Your task to perform on an android device: turn off sleep mode Image 0: 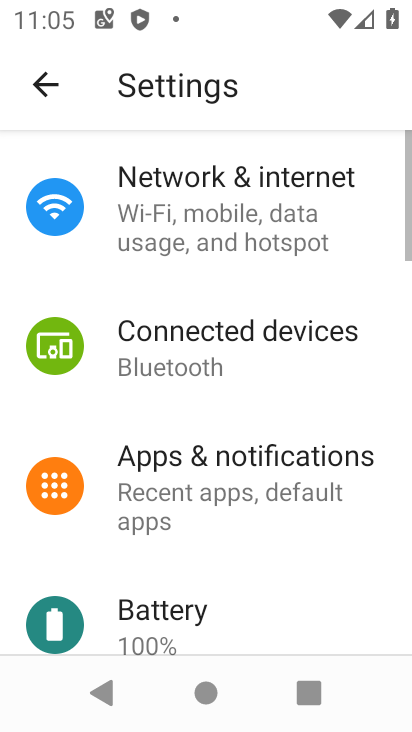
Step 0: press home button
Your task to perform on an android device: turn off sleep mode Image 1: 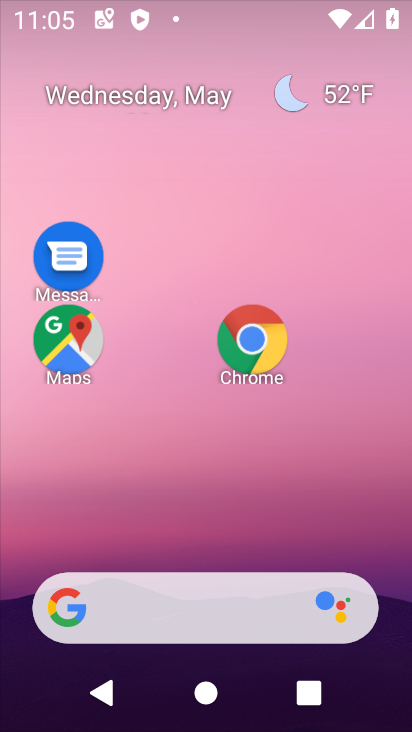
Step 1: drag from (209, 520) to (196, 88)
Your task to perform on an android device: turn off sleep mode Image 2: 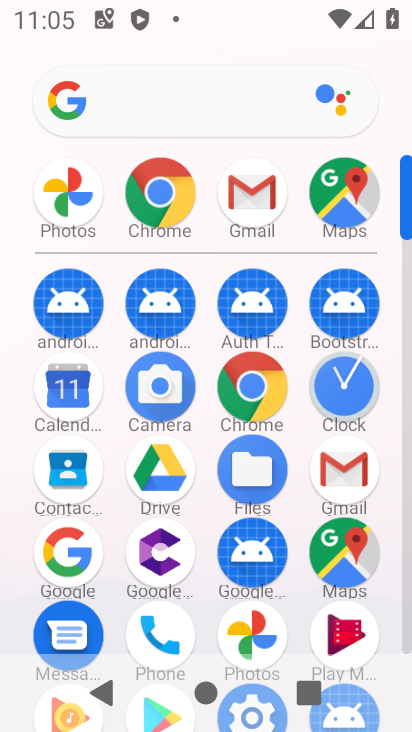
Step 2: drag from (207, 274) to (209, 42)
Your task to perform on an android device: turn off sleep mode Image 3: 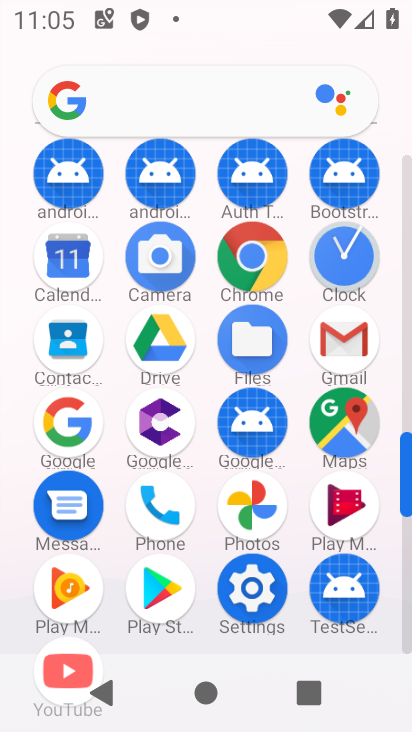
Step 3: click (260, 588)
Your task to perform on an android device: turn off sleep mode Image 4: 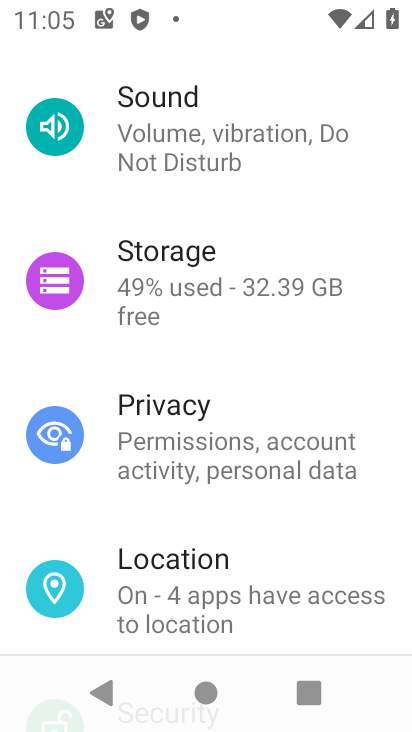
Step 4: drag from (286, 543) to (288, 656)
Your task to perform on an android device: turn off sleep mode Image 5: 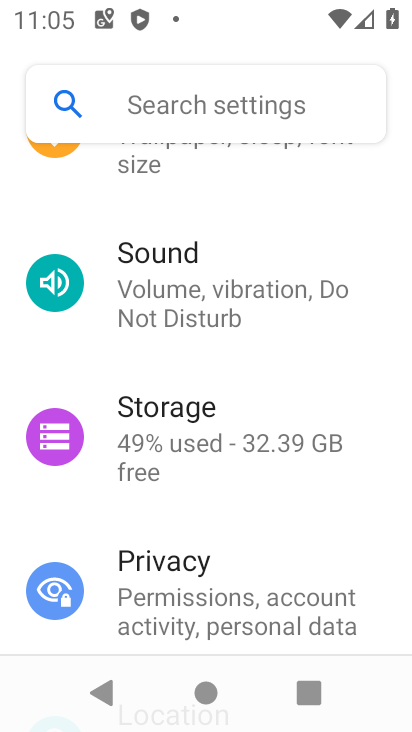
Step 5: drag from (210, 249) to (220, 469)
Your task to perform on an android device: turn off sleep mode Image 6: 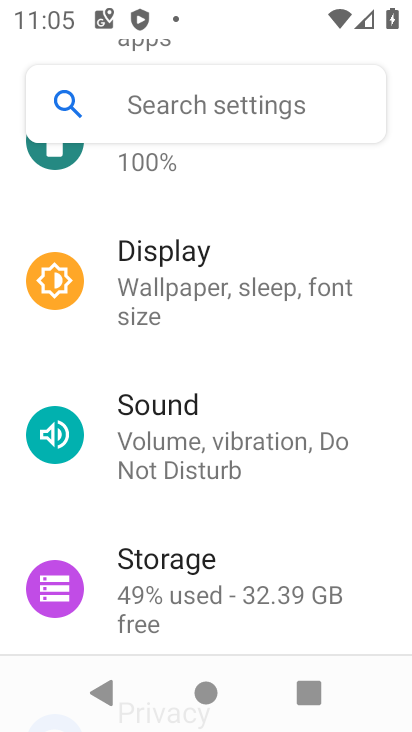
Step 6: click (192, 263)
Your task to perform on an android device: turn off sleep mode Image 7: 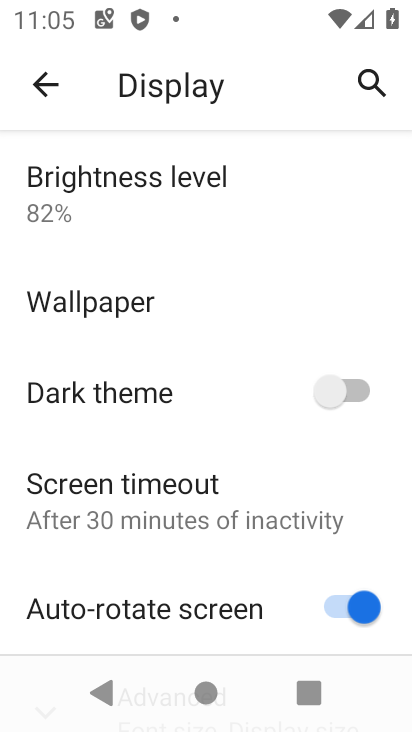
Step 7: click (200, 502)
Your task to perform on an android device: turn off sleep mode Image 8: 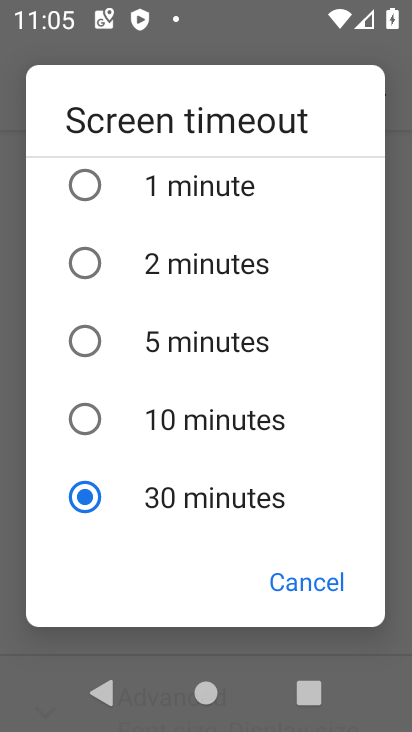
Step 8: task complete